Your task to perform on an android device: turn vacation reply on in the gmail app Image 0: 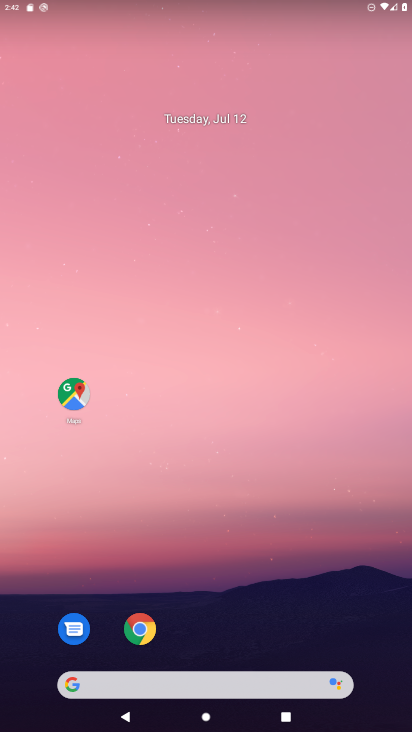
Step 0: drag from (167, 688) to (191, 48)
Your task to perform on an android device: turn vacation reply on in the gmail app Image 1: 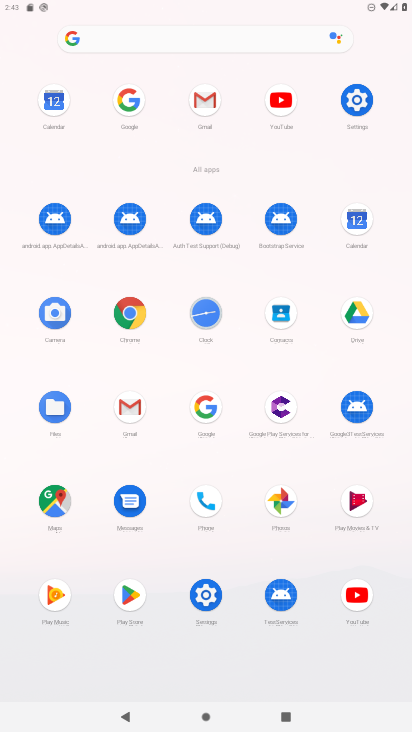
Step 1: click (203, 100)
Your task to perform on an android device: turn vacation reply on in the gmail app Image 2: 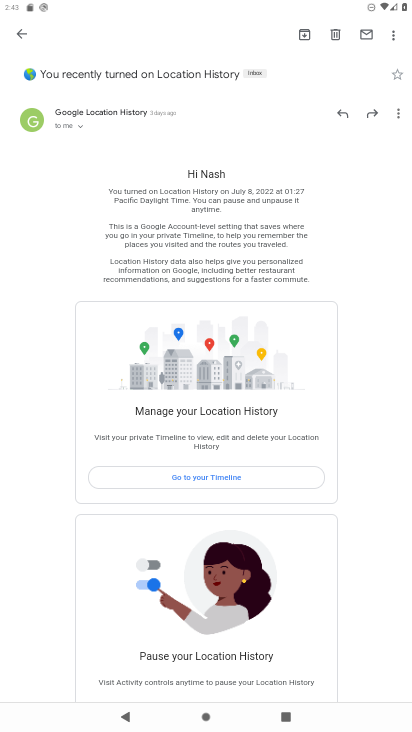
Step 2: press back button
Your task to perform on an android device: turn vacation reply on in the gmail app Image 3: 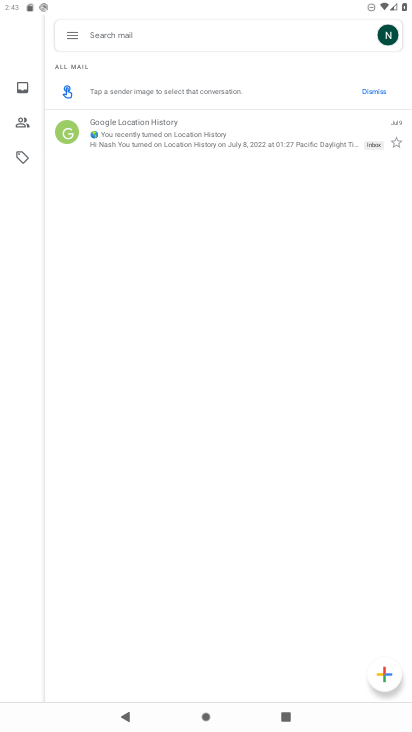
Step 3: click (72, 33)
Your task to perform on an android device: turn vacation reply on in the gmail app Image 4: 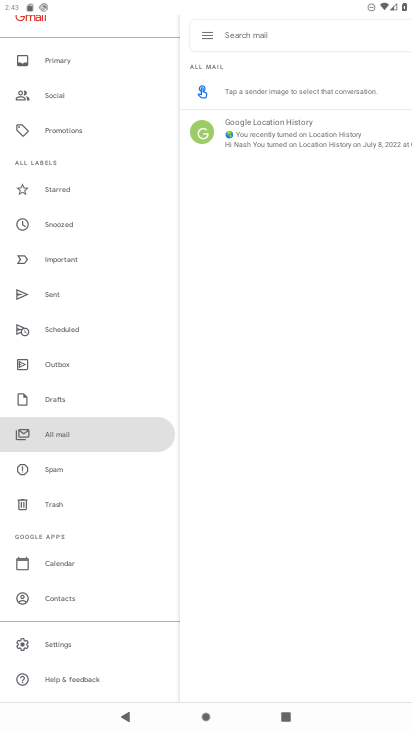
Step 4: click (53, 644)
Your task to perform on an android device: turn vacation reply on in the gmail app Image 5: 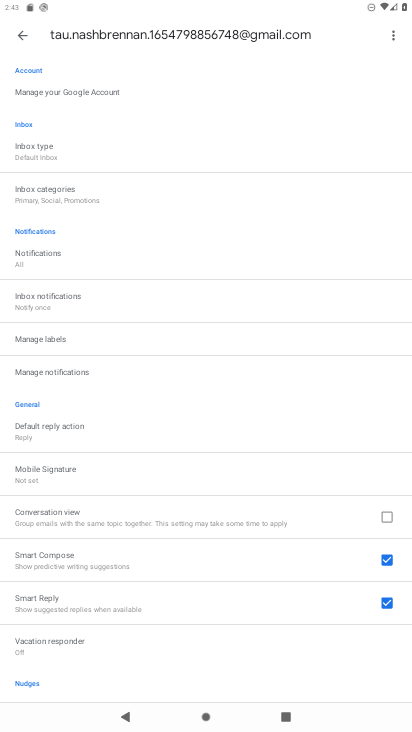
Step 5: click (62, 639)
Your task to perform on an android device: turn vacation reply on in the gmail app Image 6: 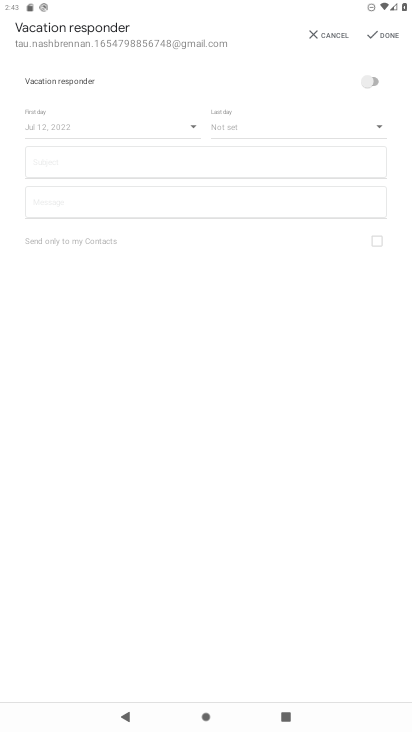
Step 6: click (370, 83)
Your task to perform on an android device: turn vacation reply on in the gmail app Image 7: 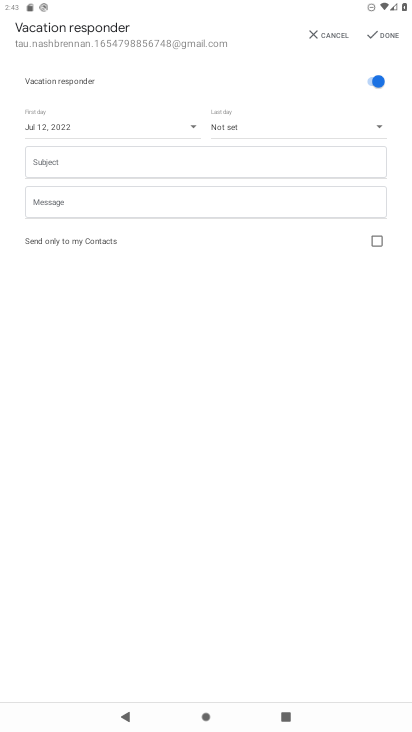
Step 7: task complete